Your task to perform on an android device: toggle notifications settings in the gmail app Image 0: 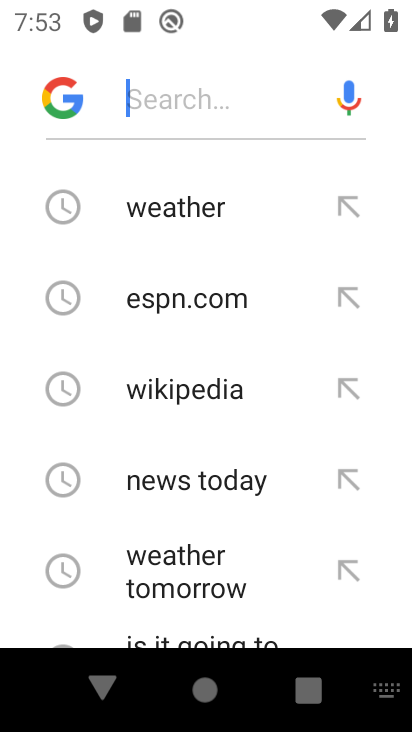
Step 0: press home button
Your task to perform on an android device: toggle notifications settings in the gmail app Image 1: 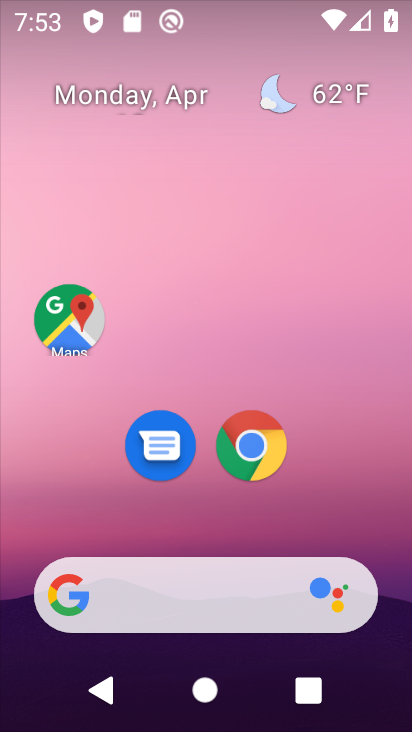
Step 1: drag from (379, 517) to (339, 13)
Your task to perform on an android device: toggle notifications settings in the gmail app Image 2: 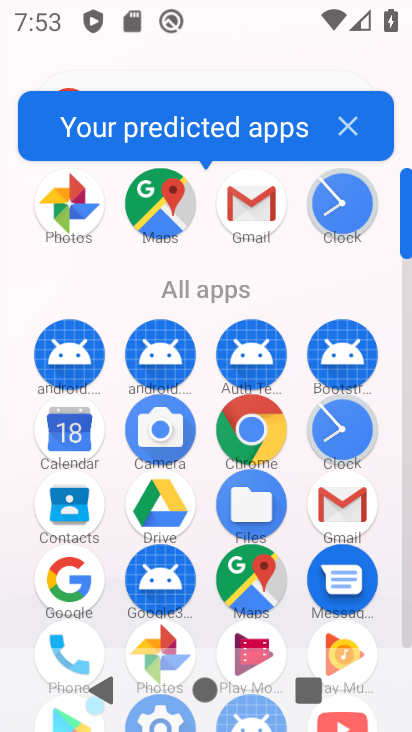
Step 2: click (247, 208)
Your task to perform on an android device: toggle notifications settings in the gmail app Image 3: 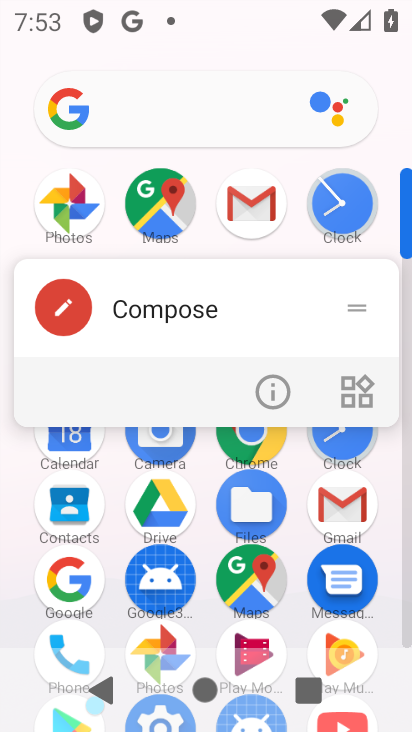
Step 3: click (247, 208)
Your task to perform on an android device: toggle notifications settings in the gmail app Image 4: 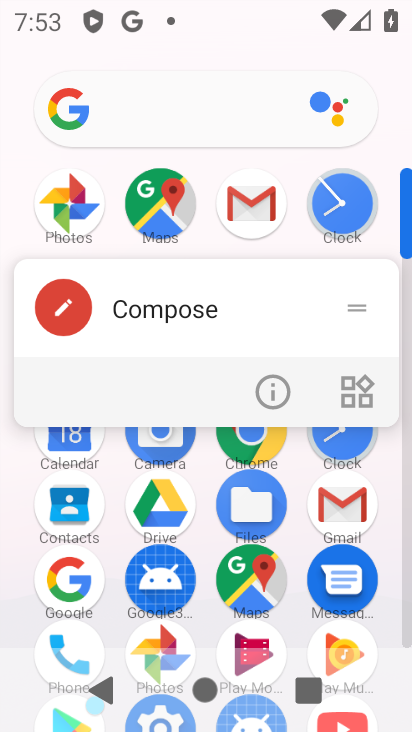
Step 4: click (247, 207)
Your task to perform on an android device: toggle notifications settings in the gmail app Image 5: 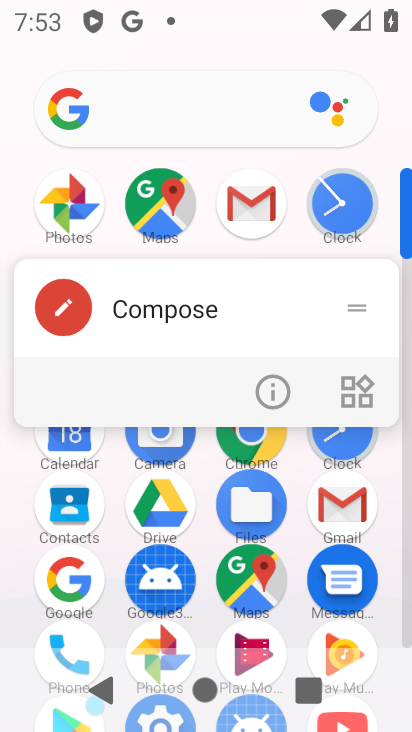
Step 5: click (242, 210)
Your task to perform on an android device: toggle notifications settings in the gmail app Image 6: 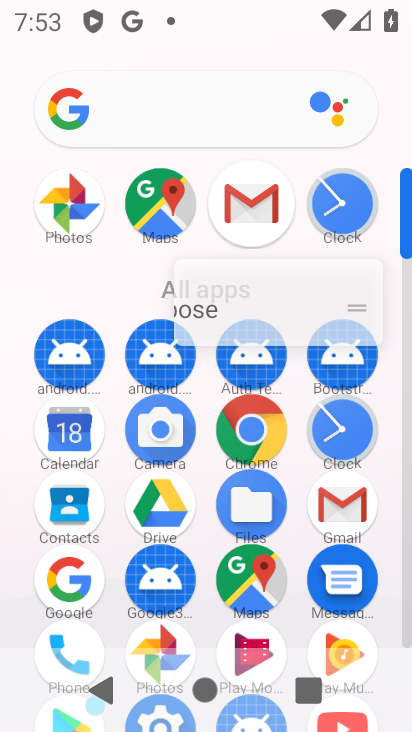
Step 6: click (242, 210)
Your task to perform on an android device: toggle notifications settings in the gmail app Image 7: 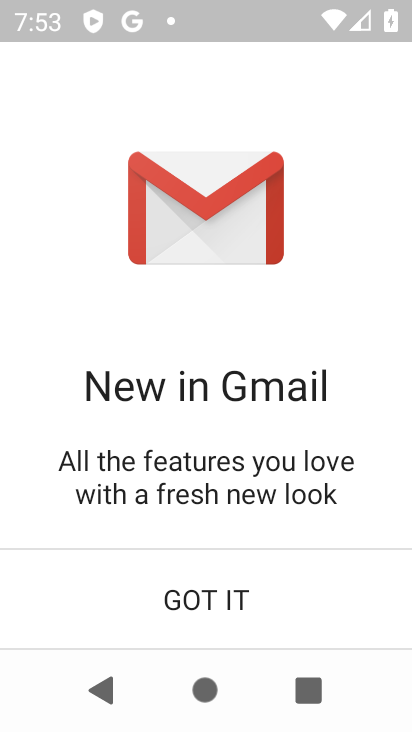
Step 7: click (185, 584)
Your task to perform on an android device: toggle notifications settings in the gmail app Image 8: 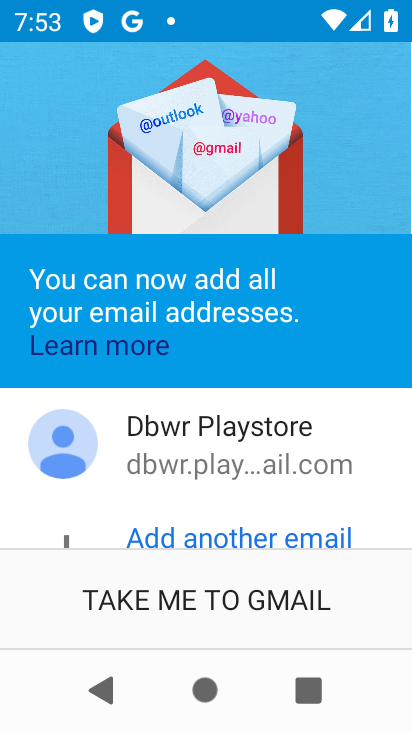
Step 8: click (176, 595)
Your task to perform on an android device: toggle notifications settings in the gmail app Image 9: 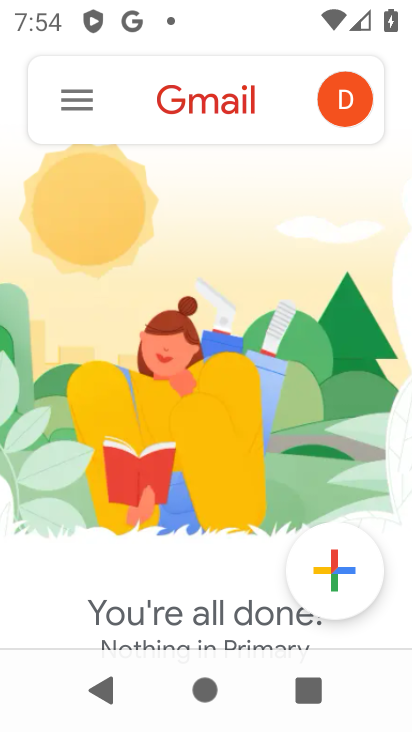
Step 9: click (60, 93)
Your task to perform on an android device: toggle notifications settings in the gmail app Image 10: 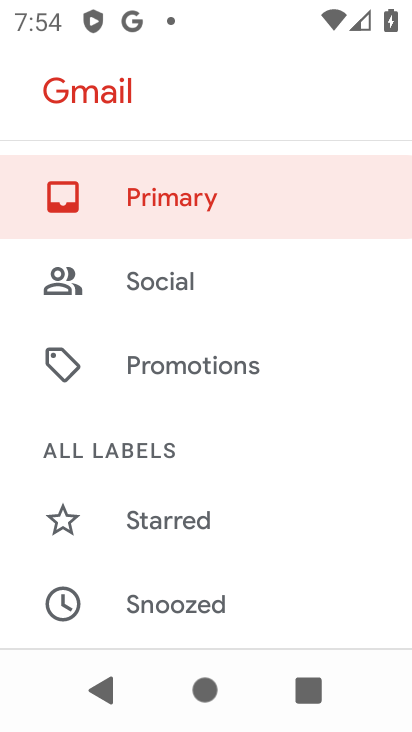
Step 10: drag from (304, 373) to (292, 163)
Your task to perform on an android device: toggle notifications settings in the gmail app Image 11: 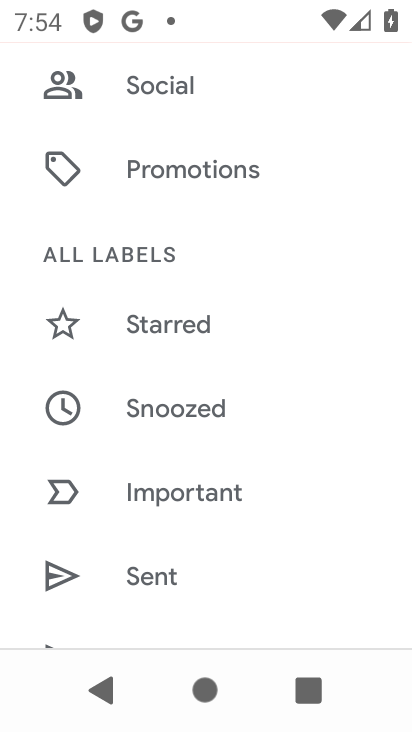
Step 11: drag from (242, 566) to (283, 193)
Your task to perform on an android device: toggle notifications settings in the gmail app Image 12: 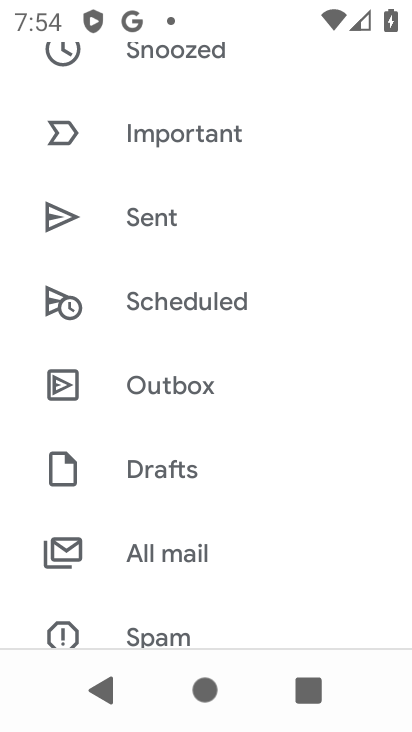
Step 12: drag from (275, 583) to (345, 114)
Your task to perform on an android device: toggle notifications settings in the gmail app Image 13: 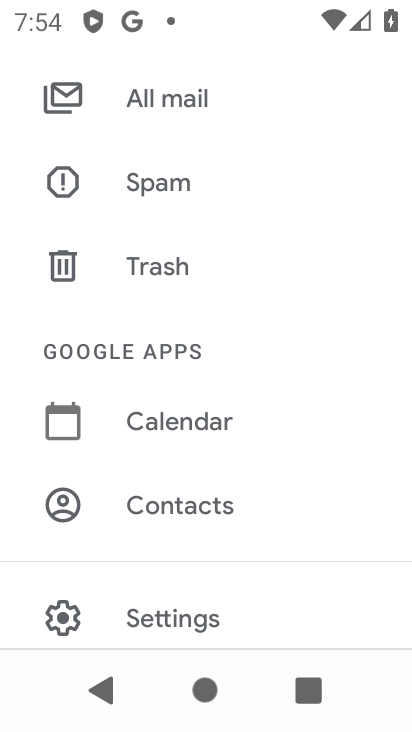
Step 13: drag from (288, 507) to (307, 147)
Your task to perform on an android device: toggle notifications settings in the gmail app Image 14: 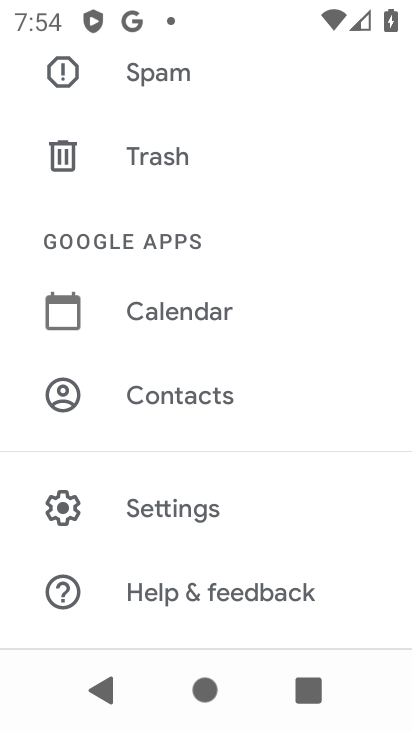
Step 14: click (182, 504)
Your task to perform on an android device: toggle notifications settings in the gmail app Image 15: 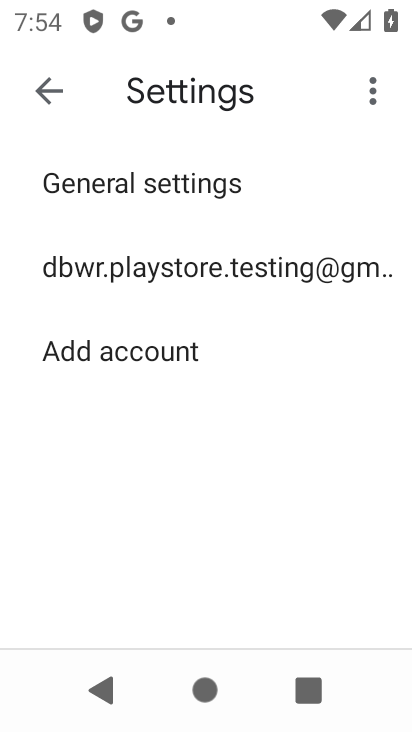
Step 15: click (84, 272)
Your task to perform on an android device: toggle notifications settings in the gmail app Image 16: 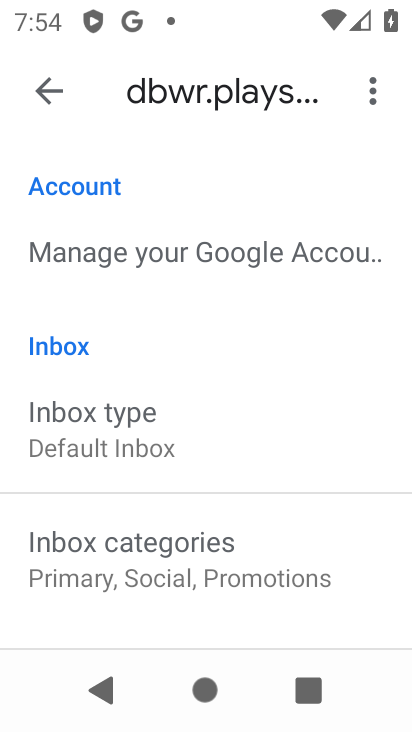
Step 16: drag from (167, 563) to (214, 202)
Your task to perform on an android device: toggle notifications settings in the gmail app Image 17: 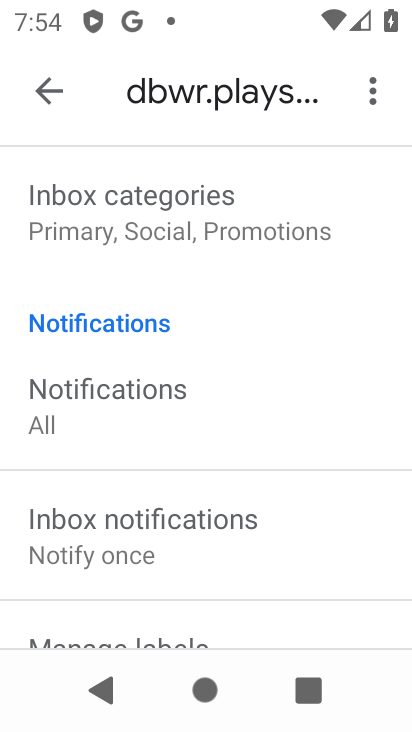
Step 17: click (42, 396)
Your task to perform on an android device: toggle notifications settings in the gmail app Image 18: 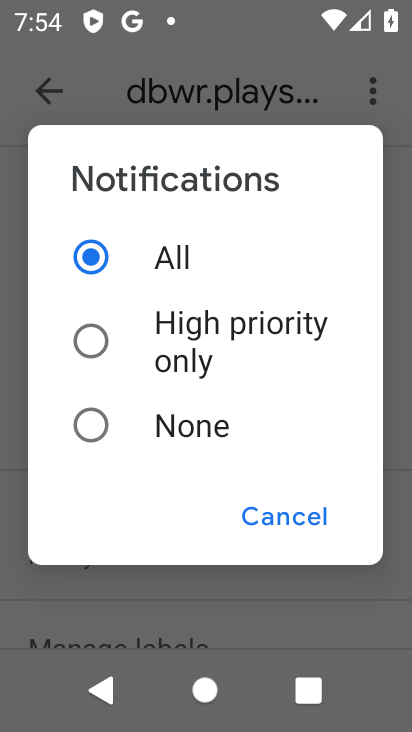
Step 18: click (99, 344)
Your task to perform on an android device: toggle notifications settings in the gmail app Image 19: 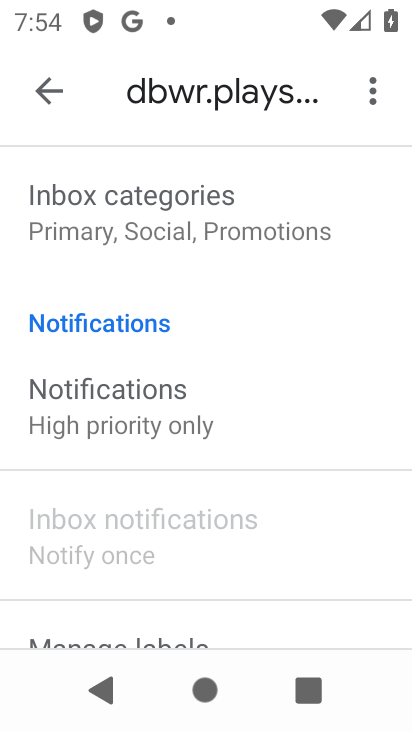
Step 19: task complete